Your task to perform on an android device: What is the news today? Image 0: 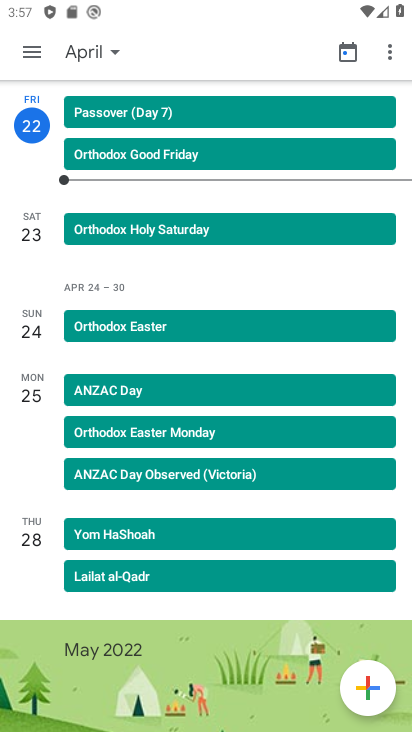
Step 0: press home button
Your task to perform on an android device: What is the news today? Image 1: 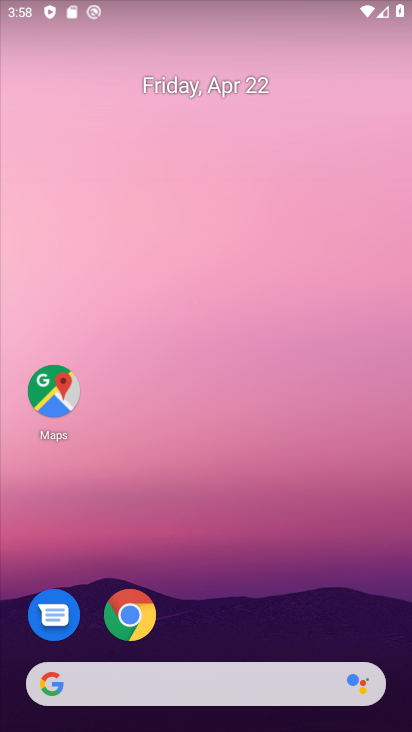
Step 1: task complete